Your task to perform on an android device: Open settings Image 0: 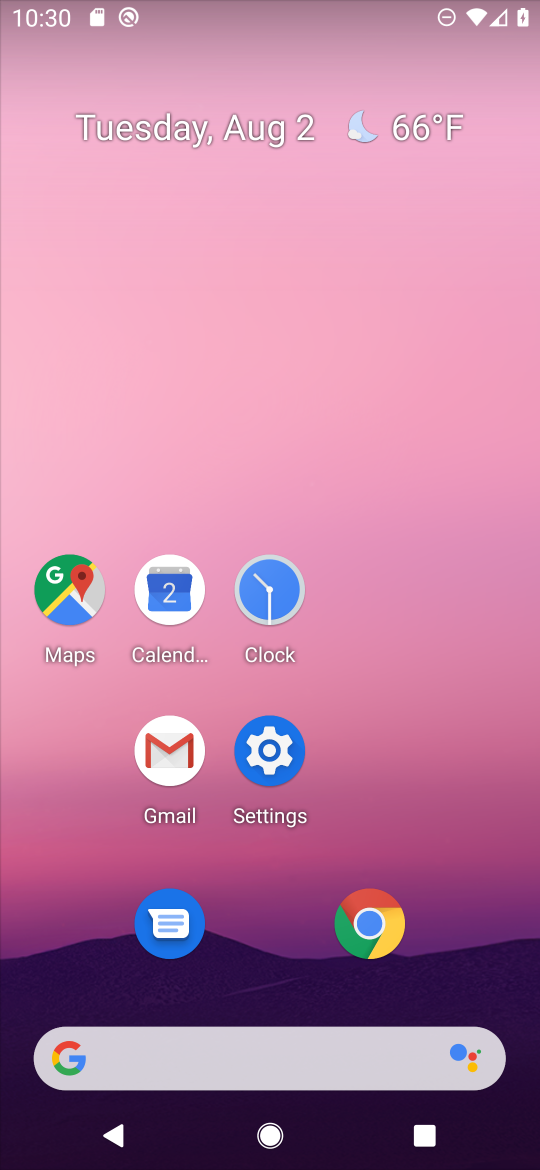
Step 0: click (267, 757)
Your task to perform on an android device: Open settings Image 1: 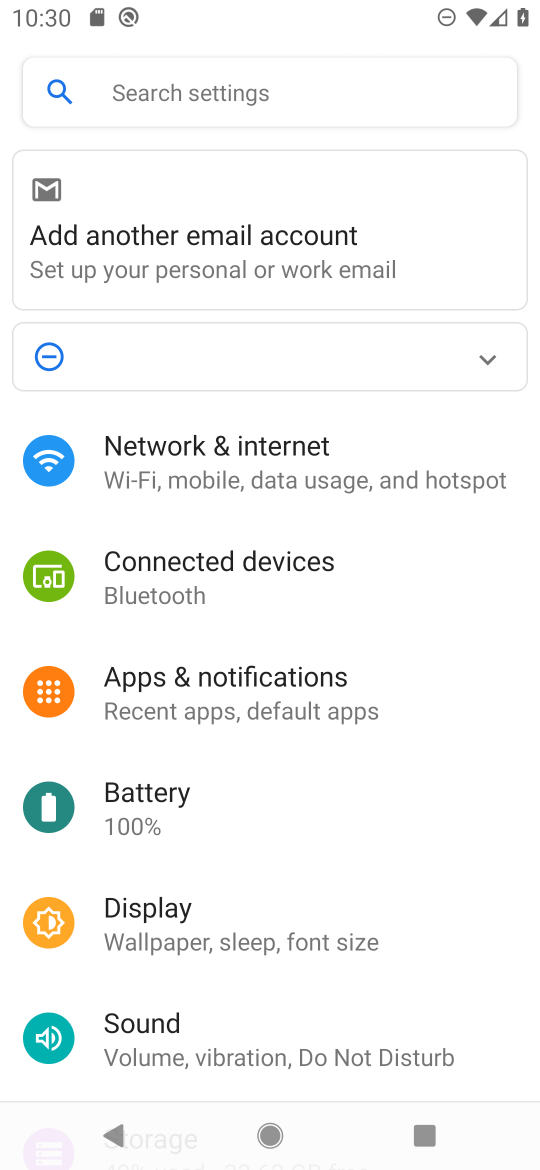
Step 1: task complete